Your task to perform on an android device: open the mobile data screen to see how much data has been used Image 0: 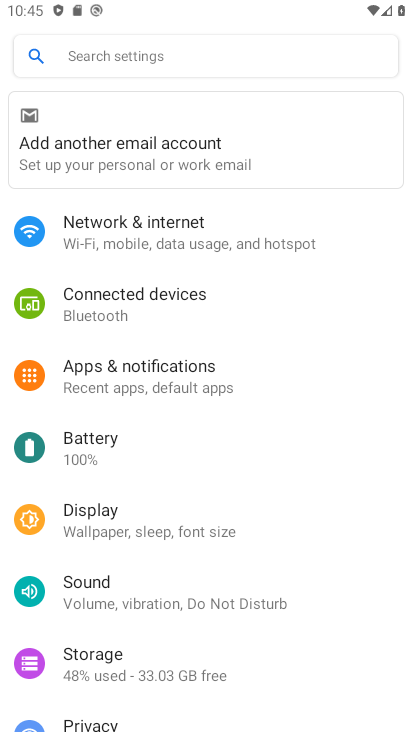
Step 0: press home button
Your task to perform on an android device: open the mobile data screen to see how much data has been used Image 1: 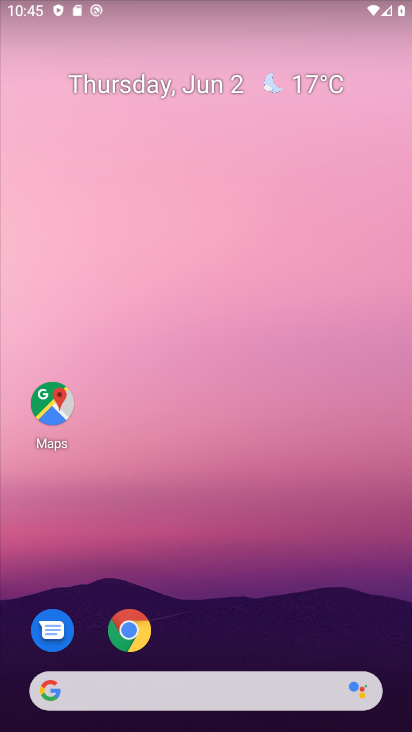
Step 1: drag from (211, 629) to (258, 210)
Your task to perform on an android device: open the mobile data screen to see how much data has been used Image 2: 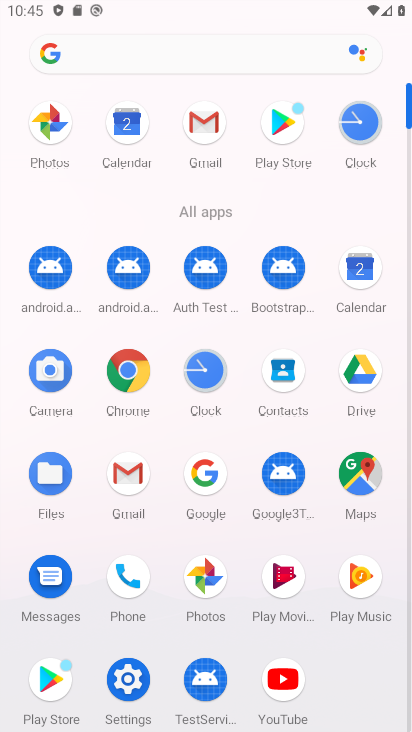
Step 2: click (139, 676)
Your task to perform on an android device: open the mobile data screen to see how much data has been used Image 3: 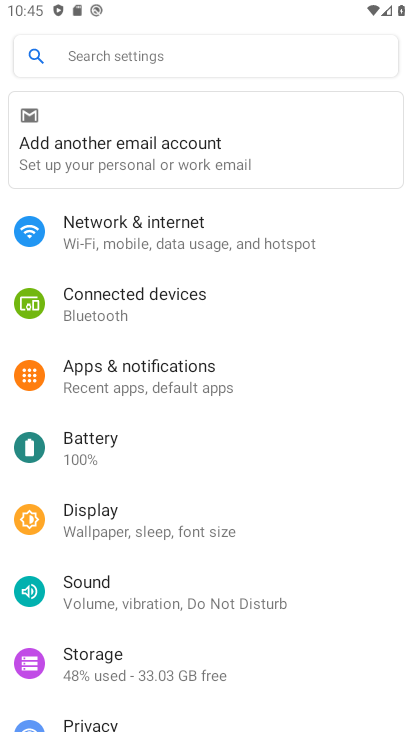
Step 3: click (226, 236)
Your task to perform on an android device: open the mobile data screen to see how much data has been used Image 4: 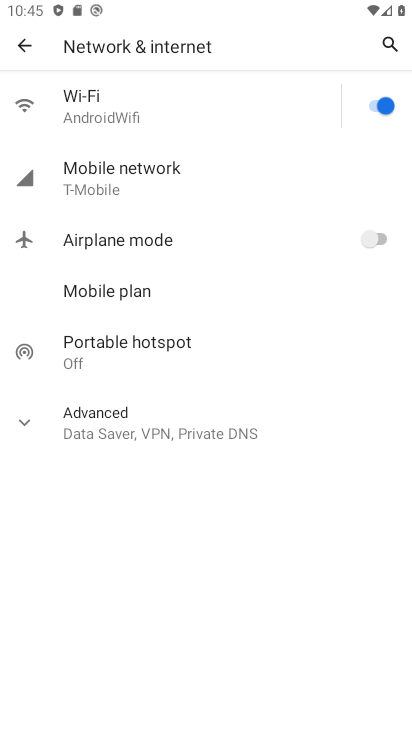
Step 4: click (135, 184)
Your task to perform on an android device: open the mobile data screen to see how much data has been used Image 5: 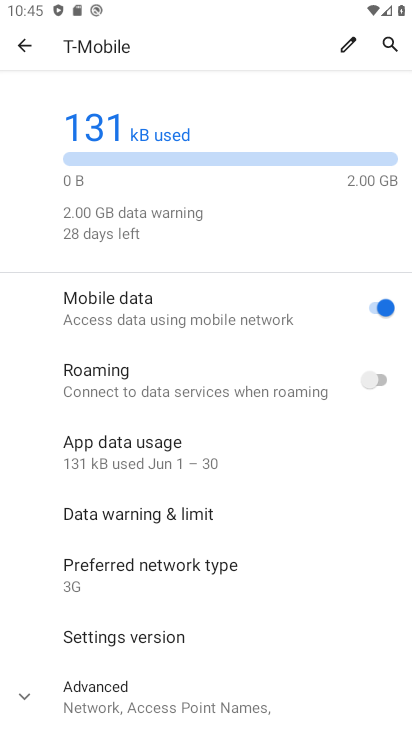
Step 5: click (195, 454)
Your task to perform on an android device: open the mobile data screen to see how much data has been used Image 6: 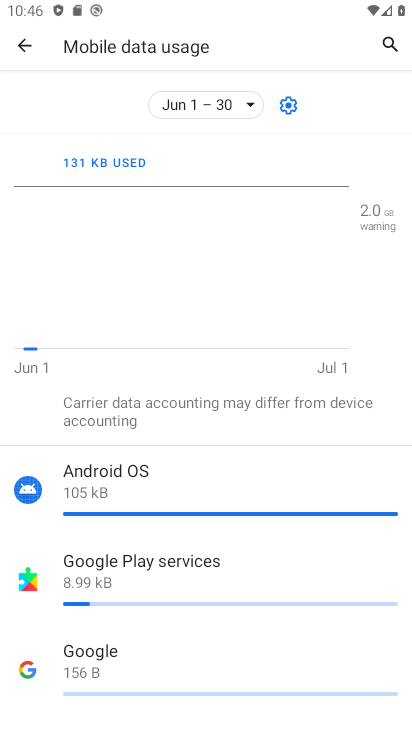
Step 6: task complete